Your task to perform on an android device: Open the calendar app, open the side menu, and click the "Day" option Image 0: 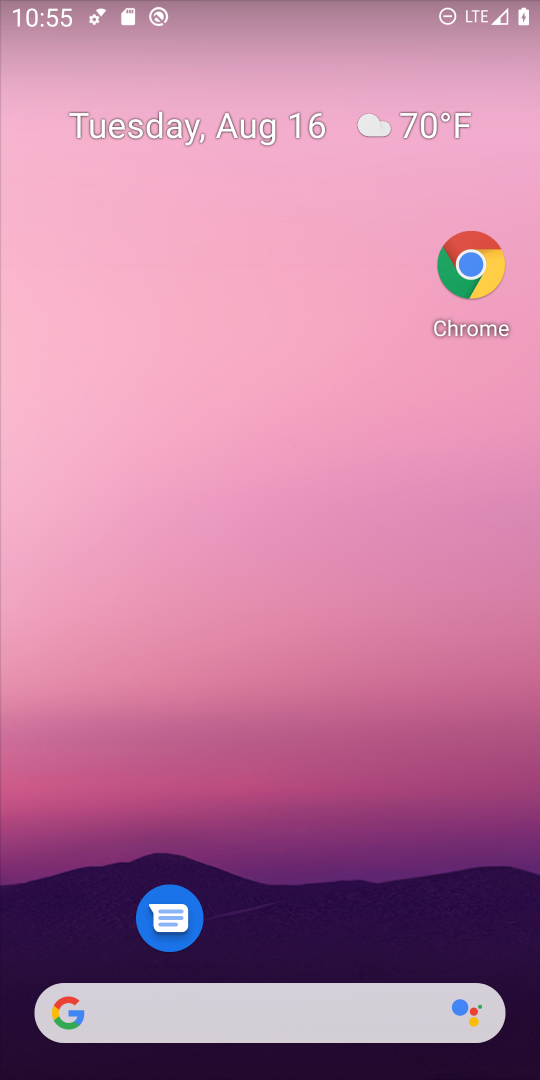
Step 0: press home button
Your task to perform on an android device: Open the calendar app, open the side menu, and click the "Day" option Image 1: 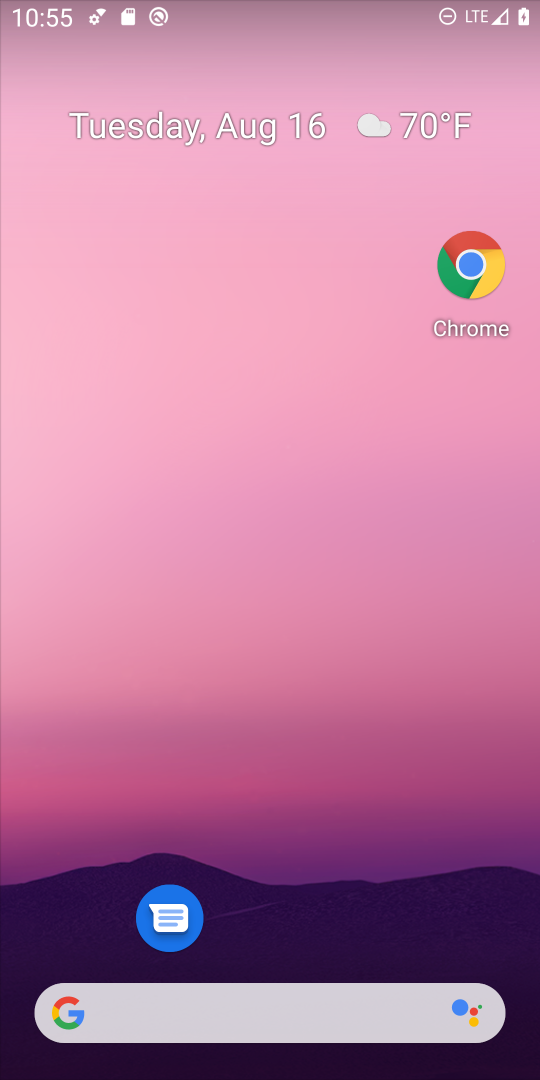
Step 1: drag from (218, 946) to (237, 128)
Your task to perform on an android device: Open the calendar app, open the side menu, and click the "Day" option Image 2: 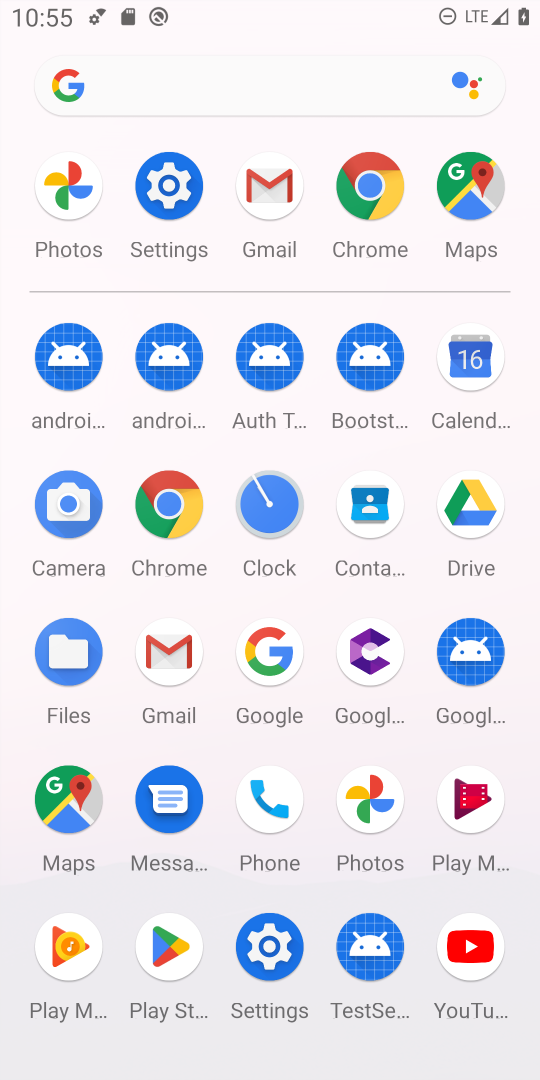
Step 2: click (463, 394)
Your task to perform on an android device: Open the calendar app, open the side menu, and click the "Day" option Image 3: 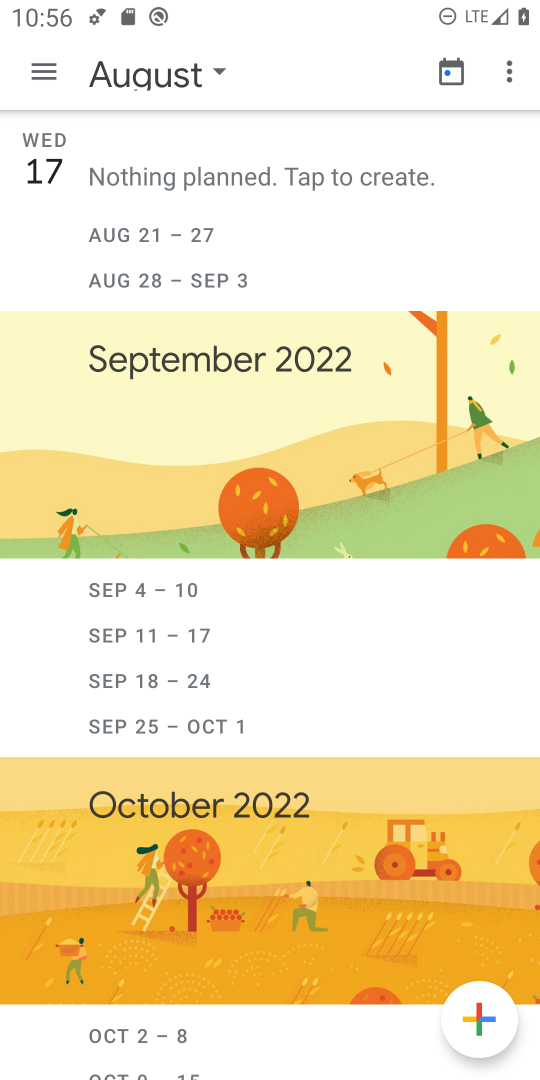
Step 3: click (45, 87)
Your task to perform on an android device: Open the calendar app, open the side menu, and click the "Day" option Image 4: 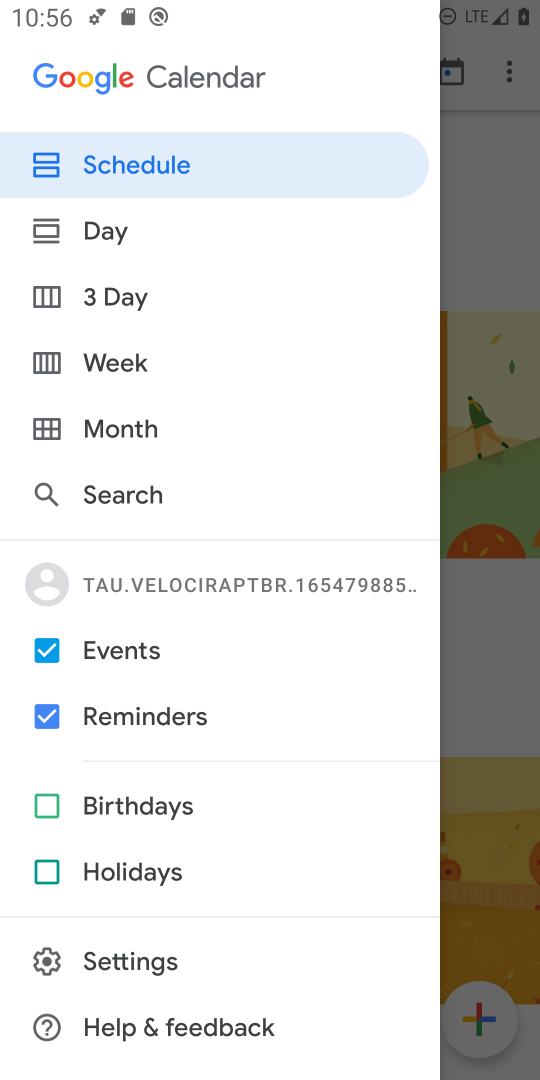
Step 4: click (87, 221)
Your task to perform on an android device: Open the calendar app, open the side menu, and click the "Day" option Image 5: 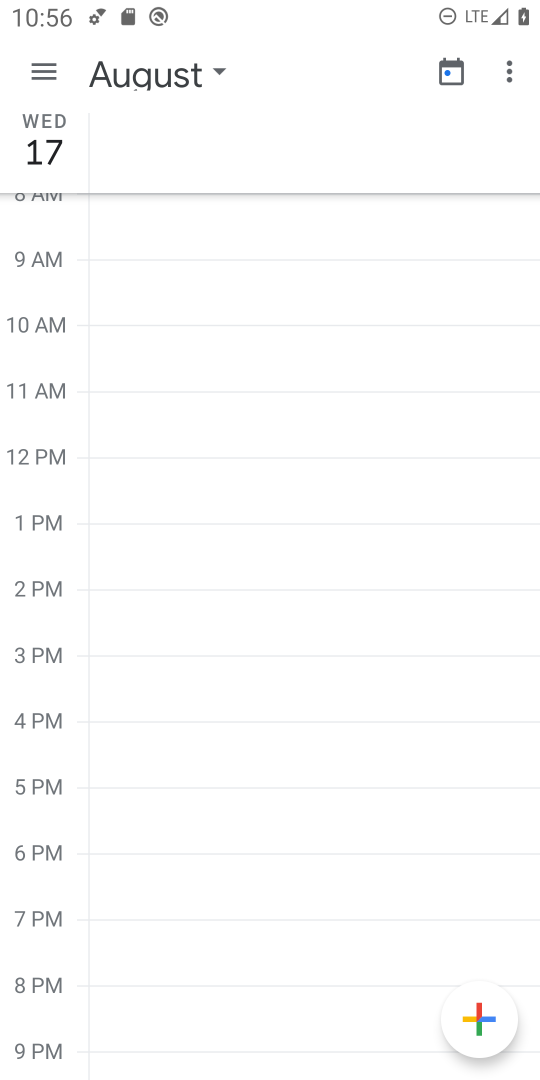
Step 5: task complete